Your task to perform on an android device: change alarm snooze length Image 0: 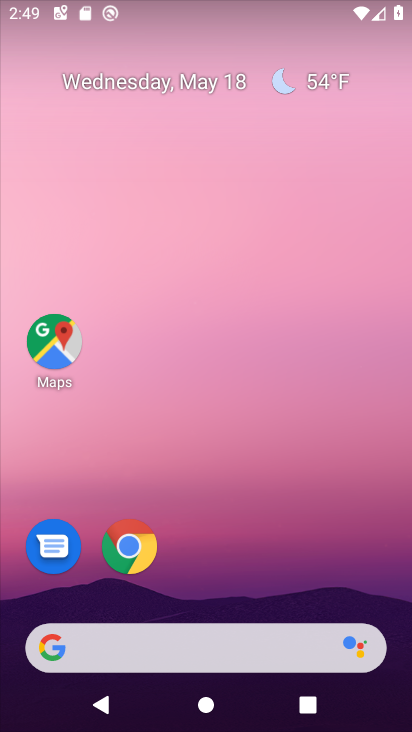
Step 0: drag from (362, 650) to (256, 247)
Your task to perform on an android device: change alarm snooze length Image 1: 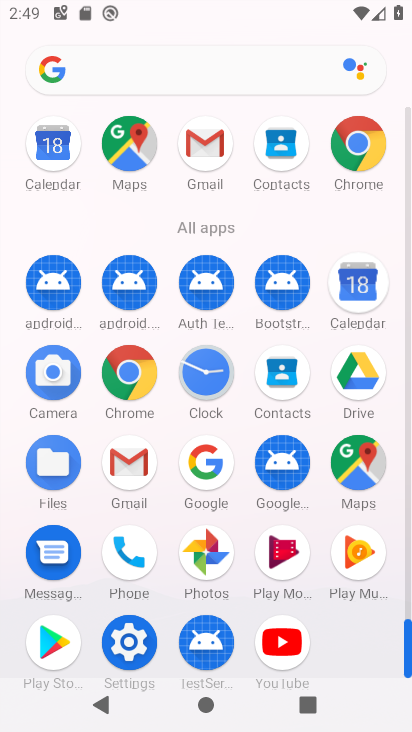
Step 1: click (196, 374)
Your task to perform on an android device: change alarm snooze length Image 2: 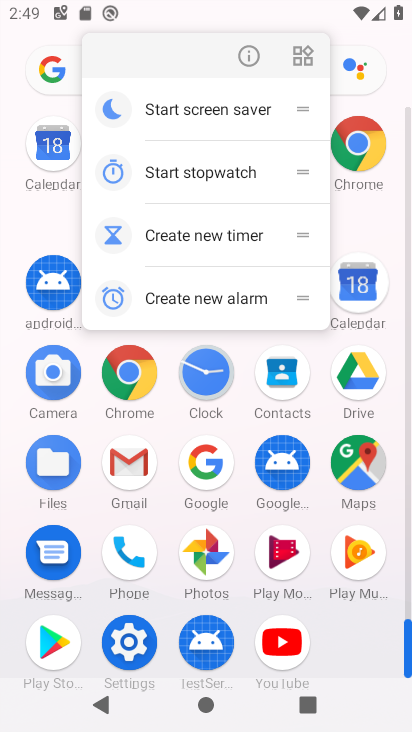
Step 2: click (196, 374)
Your task to perform on an android device: change alarm snooze length Image 3: 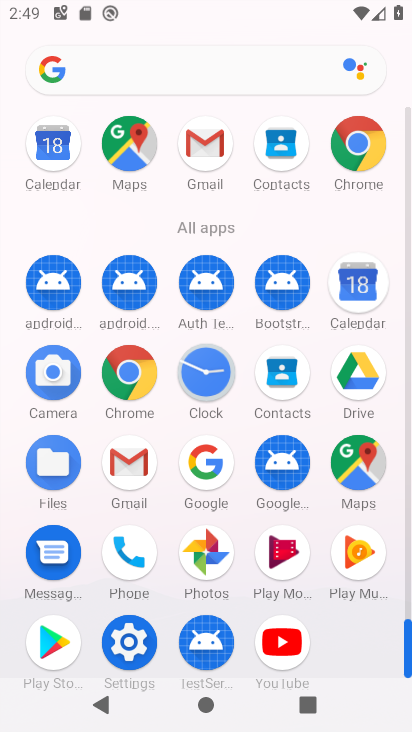
Step 3: click (196, 374)
Your task to perform on an android device: change alarm snooze length Image 4: 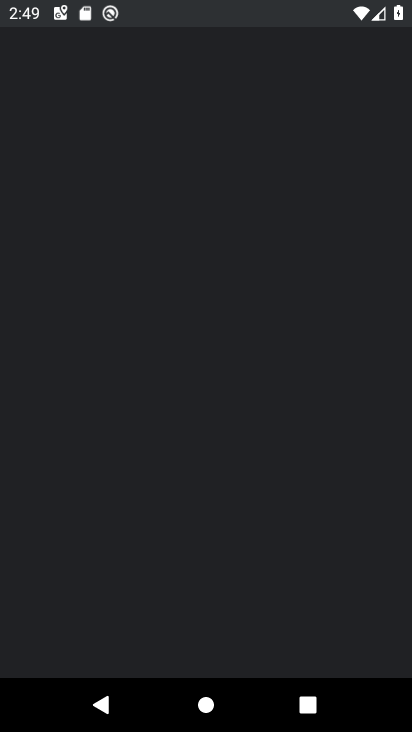
Step 4: click (196, 374)
Your task to perform on an android device: change alarm snooze length Image 5: 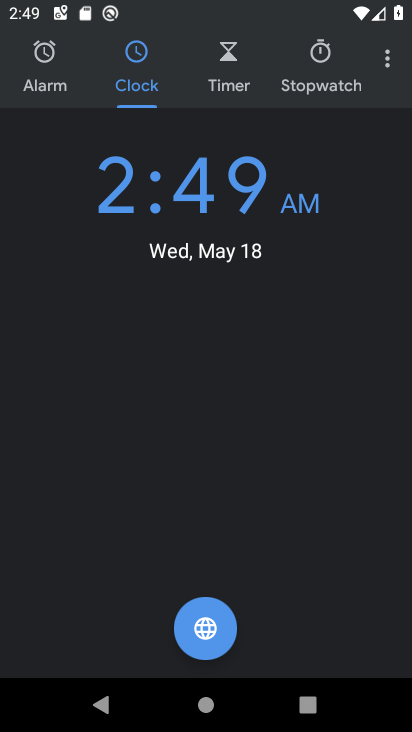
Step 5: click (387, 67)
Your task to perform on an android device: change alarm snooze length Image 6: 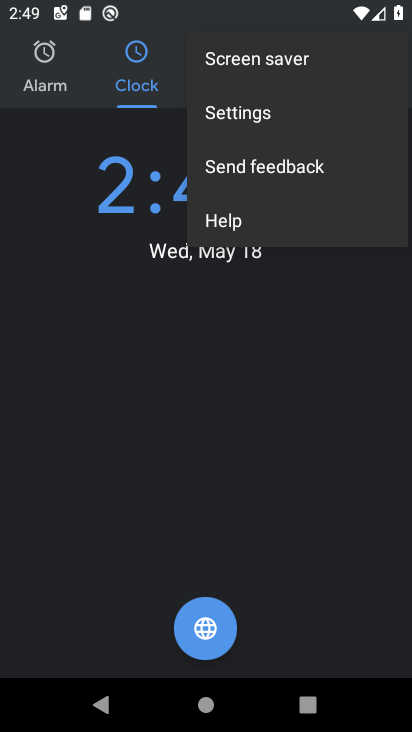
Step 6: click (250, 119)
Your task to perform on an android device: change alarm snooze length Image 7: 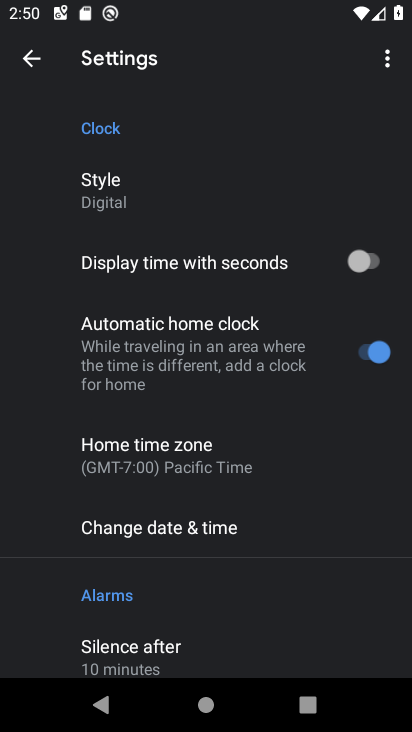
Step 7: drag from (172, 510) to (142, 129)
Your task to perform on an android device: change alarm snooze length Image 8: 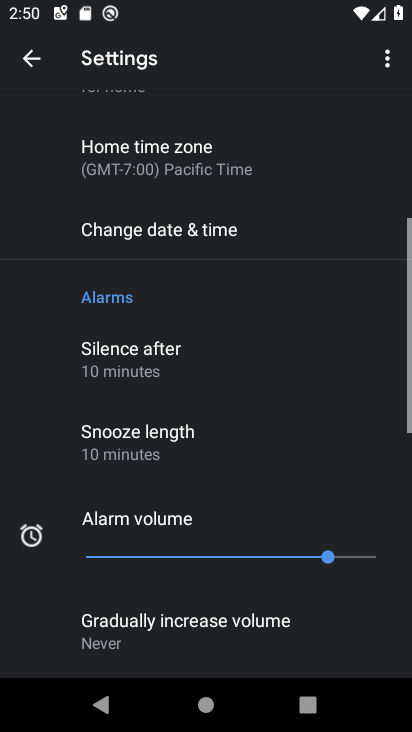
Step 8: drag from (156, 425) to (180, 214)
Your task to perform on an android device: change alarm snooze length Image 9: 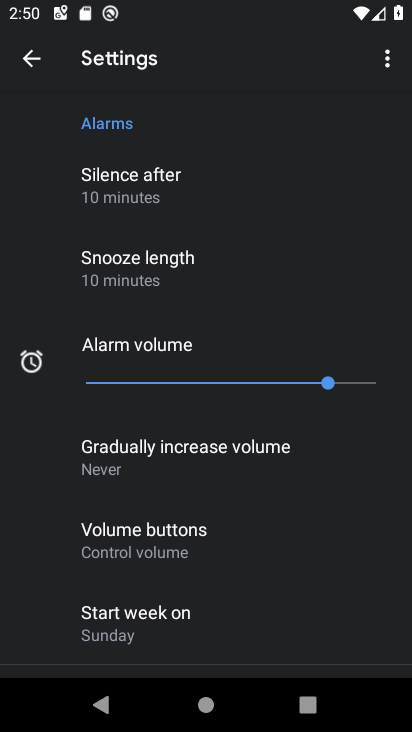
Step 9: click (100, 274)
Your task to perform on an android device: change alarm snooze length Image 10: 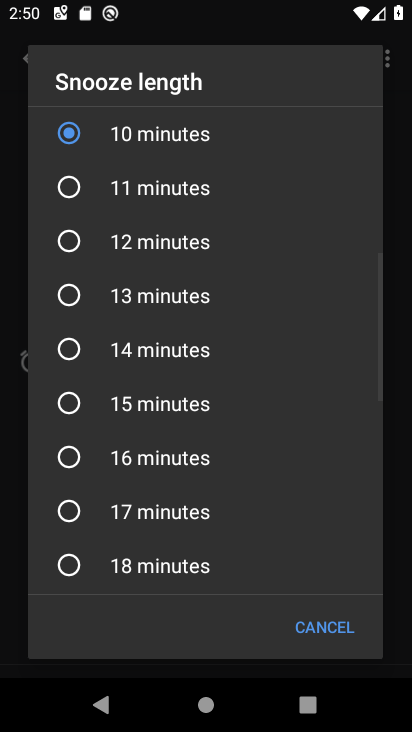
Step 10: click (72, 359)
Your task to perform on an android device: change alarm snooze length Image 11: 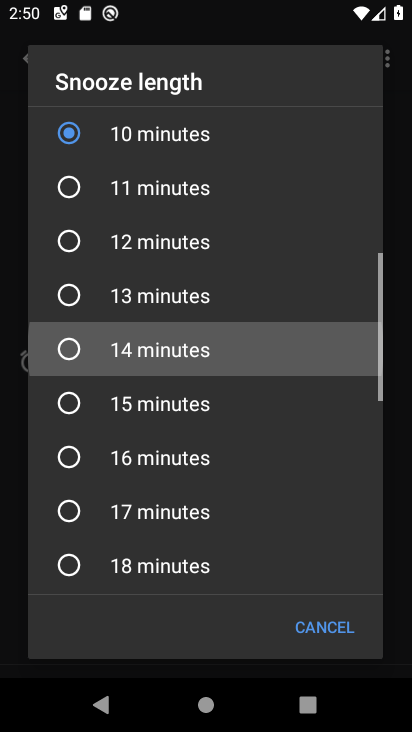
Step 11: click (72, 359)
Your task to perform on an android device: change alarm snooze length Image 12: 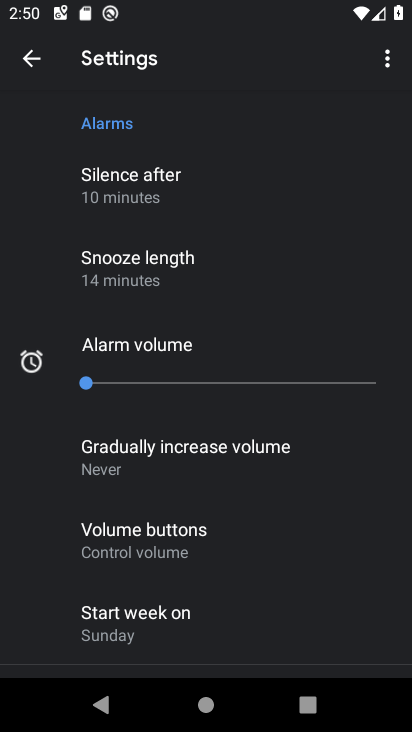
Step 12: task complete